Your task to perform on an android device: change alarm snooze length Image 0: 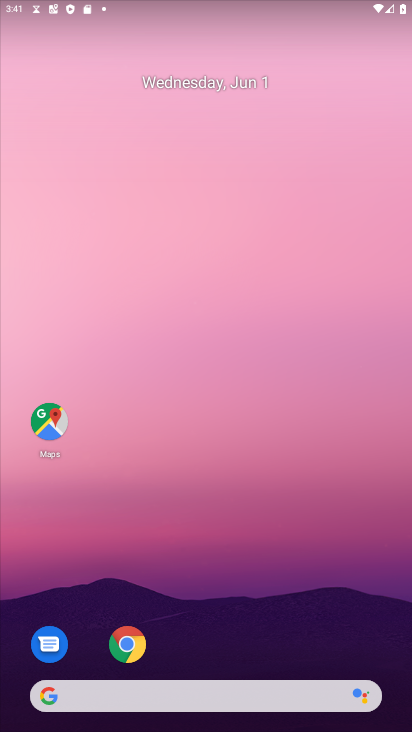
Step 0: drag from (269, 639) to (297, 57)
Your task to perform on an android device: change alarm snooze length Image 1: 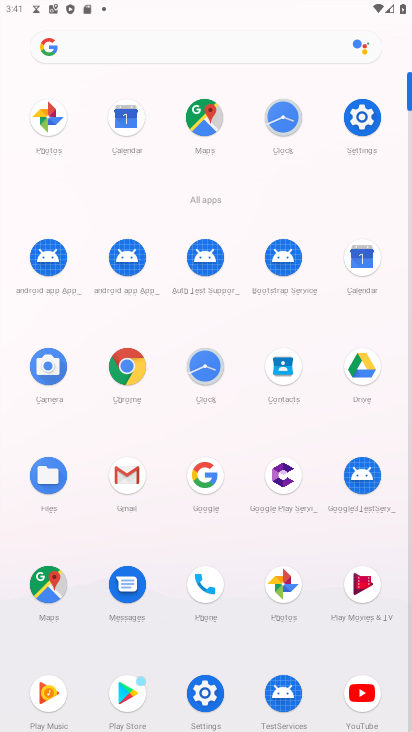
Step 1: click (291, 115)
Your task to perform on an android device: change alarm snooze length Image 2: 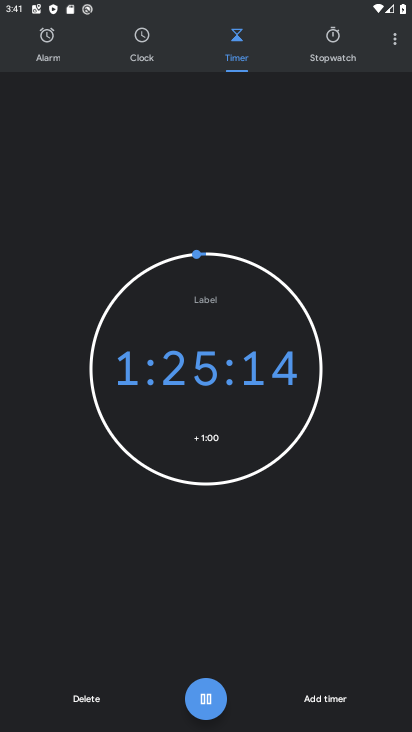
Step 2: click (398, 39)
Your task to perform on an android device: change alarm snooze length Image 3: 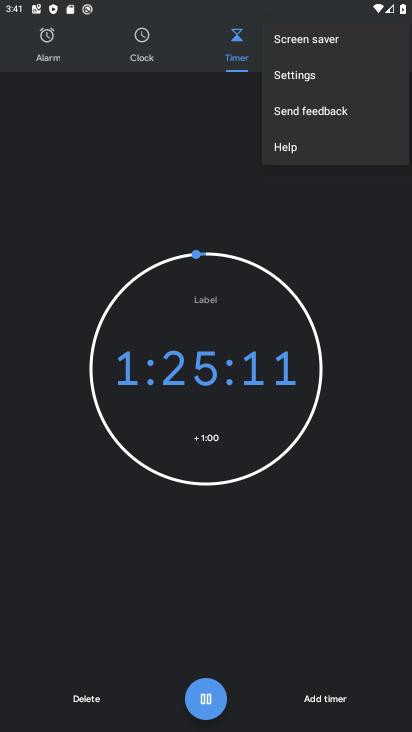
Step 3: click (339, 77)
Your task to perform on an android device: change alarm snooze length Image 4: 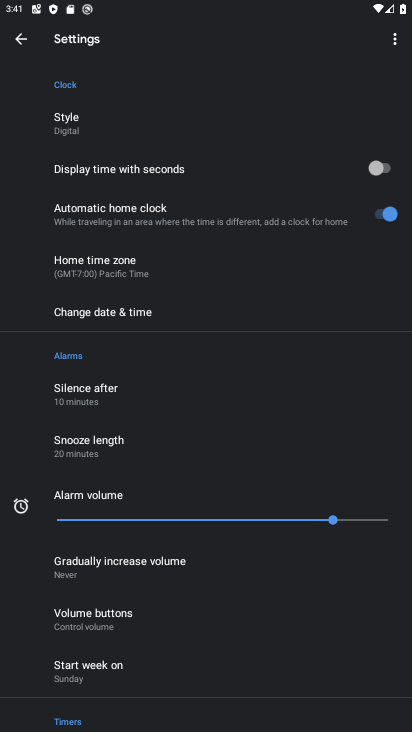
Step 4: click (146, 446)
Your task to perform on an android device: change alarm snooze length Image 5: 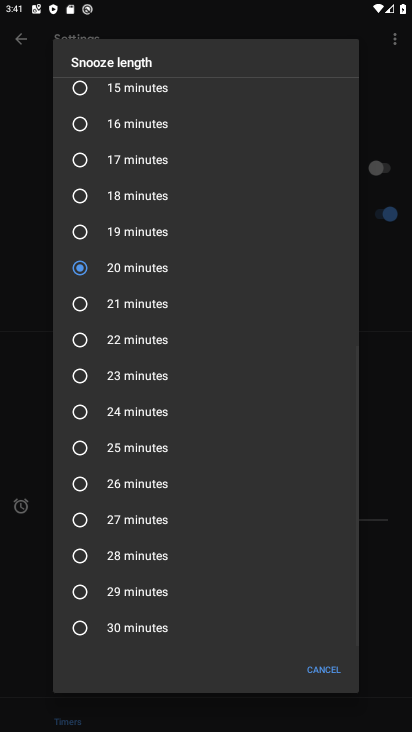
Step 5: click (69, 444)
Your task to perform on an android device: change alarm snooze length Image 6: 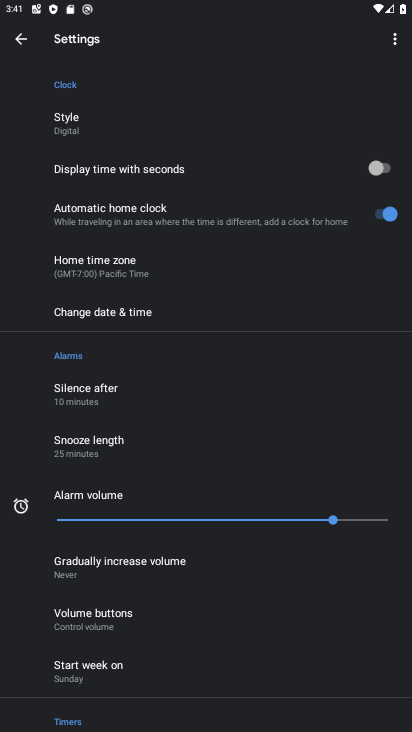
Step 6: task complete